Your task to perform on an android device: Open accessibility settings Image 0: 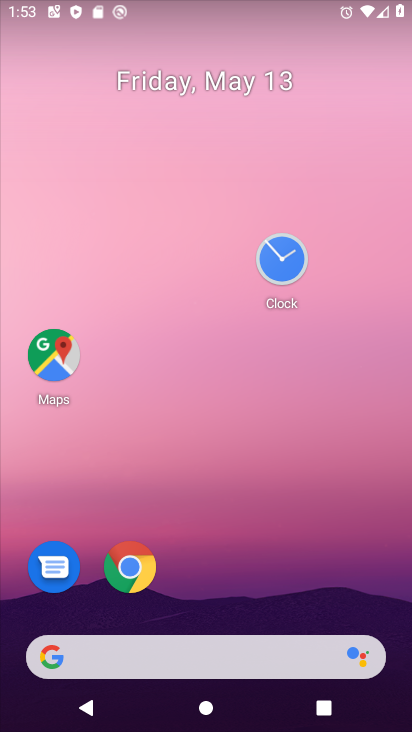
Step 0: drag from (251, 594) to (230, 92)
Your task to perform on an android device: Open accessibility settings Image 1: 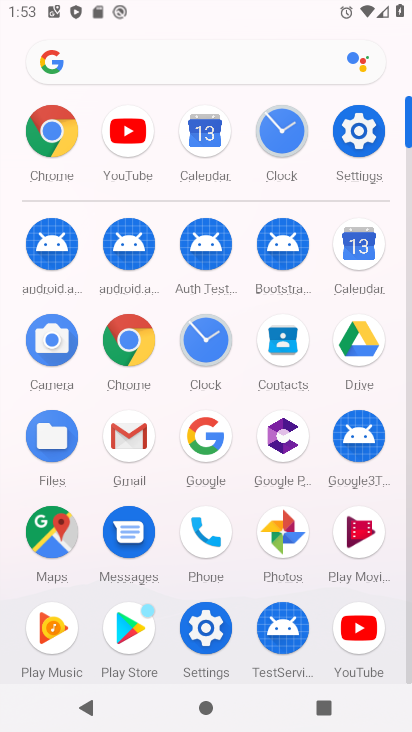
Step 1: click (351, 143)
Your task to perform on an android device: Open accessibility settings Image 2: 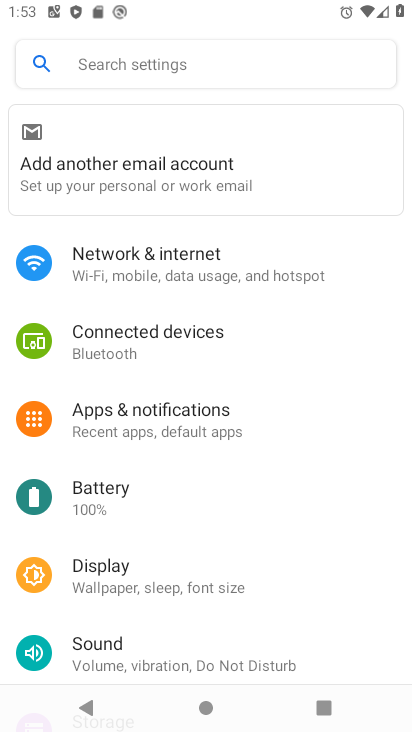
Step 2: drag from (196, 658) to (195, 444)
Your task to perform on an android device: Open accessibility settings Image 3: 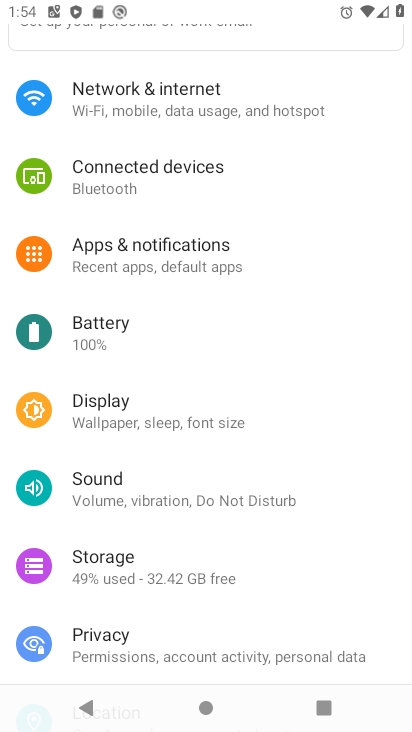
Step 3: drag from (195, 603) to (202, 480)
Your task to perform on an android device: Open accessibility settings Image 4: 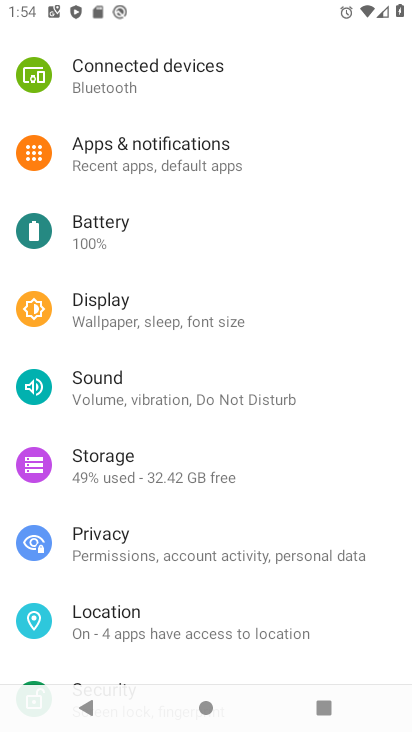
Step 4: drag from (203, 622) to (195, 382)
Your task to perform on an android device: Open accessibility settings Image 5: 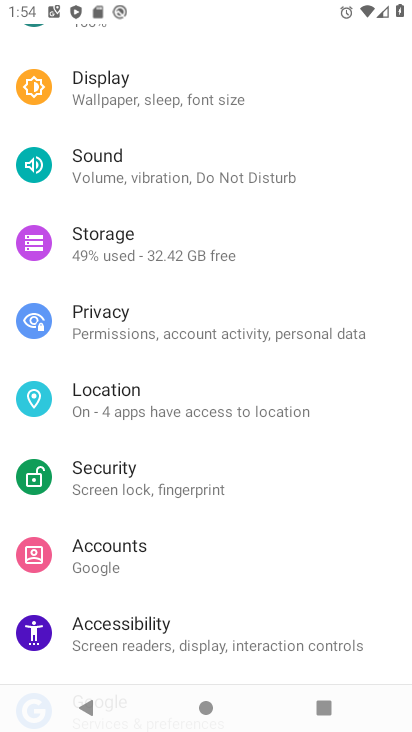
Step 5: click (200, 617)
Your task to perform on an android device: Open accessibility settings Image 6: 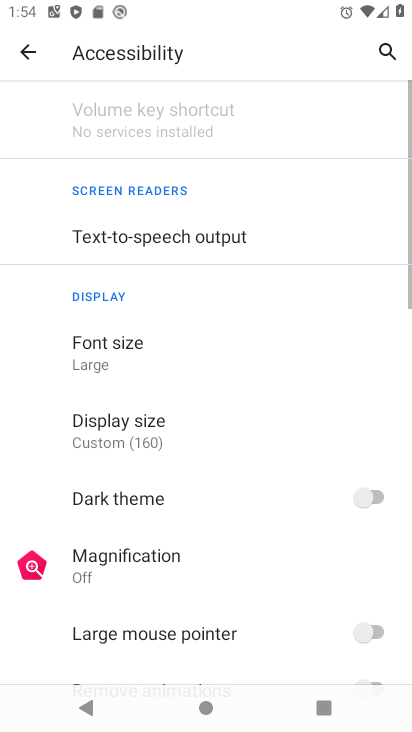
Step 6: task complete